Your task to perform on an android device: Search for sushi restaurants on Maps Image 0: 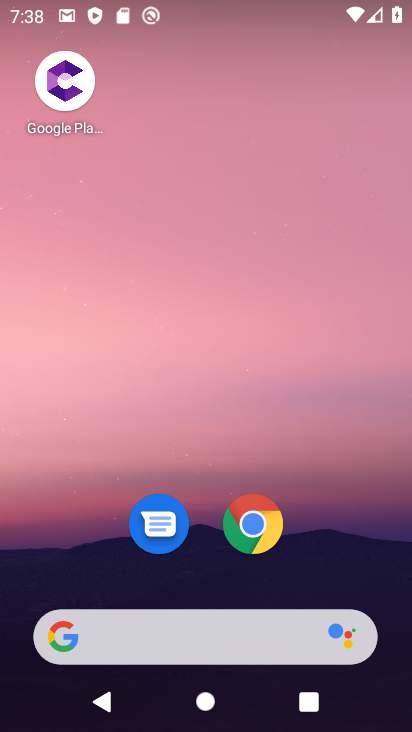
Step 0: drag from (311, 566) to (312, 2)
Your task to perform on an android device: Search for sushi restaurants on Maps Image 1: 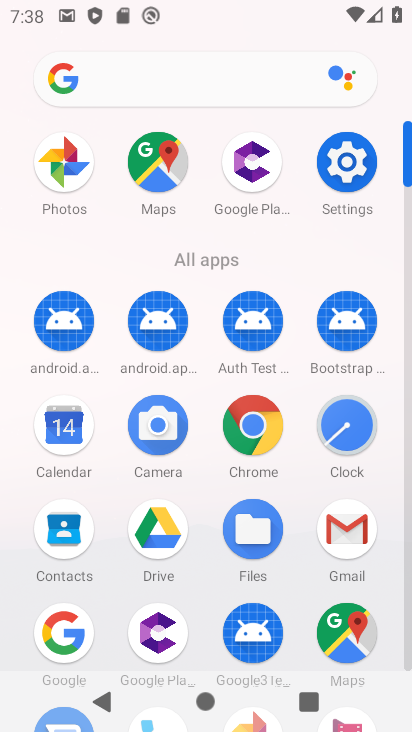
Step 1: click (164, 164)
Your task to perform on an android device: Search for sushi restaurants on Maps Image 2: 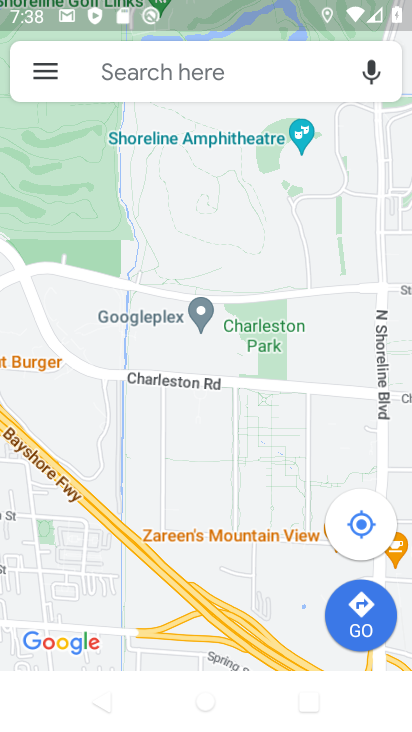
Step 2: click (204, 63)
Your task to perform on an android device: Search for sushi restaurants on Maps Image 3: 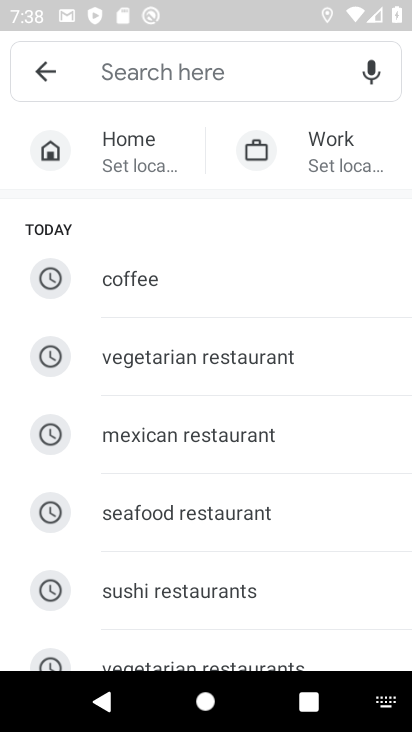
Step 3: click (199, 583)
Your task to perform on an android device: Search for sushi restaurants on Maps Image 4: 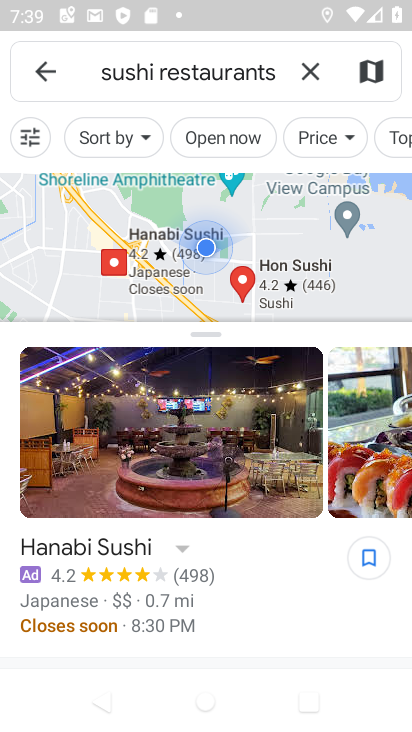
Step 4: task complete